Your task to perform on an android device: Open calendar and show me the first week of next month Image 0: 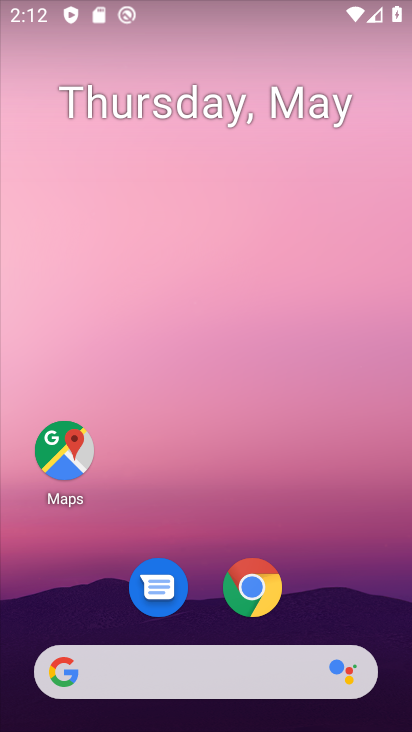
Step 0: drag from (327, 549) to (245, 80)
Your task to perform on an android device: Open calendar and show me the first week of next month Image 1: 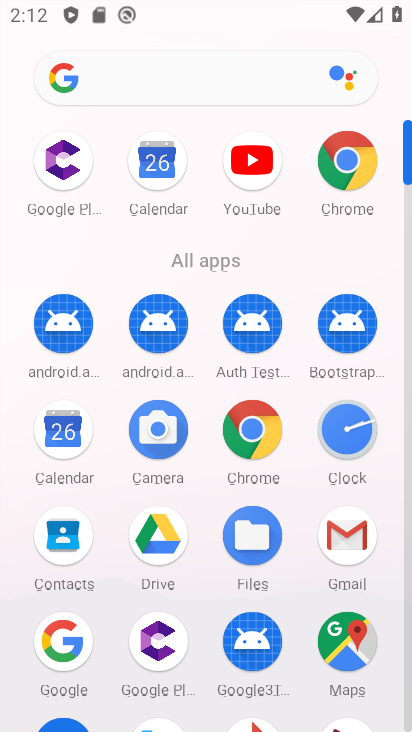
Step 1: click (71, 425)
Your task to perform on an android device: Open calendar and show me the first week of next month Image 2: 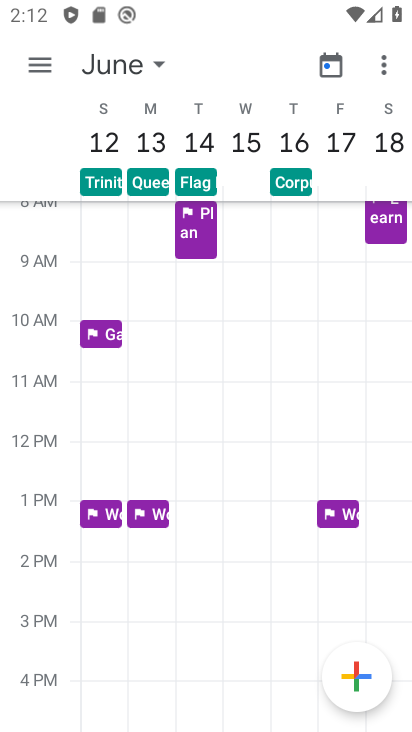
Step 2: click (106, 71)
Your task to perform on an android device: Open calendar and show me the first week of next month Image 3: 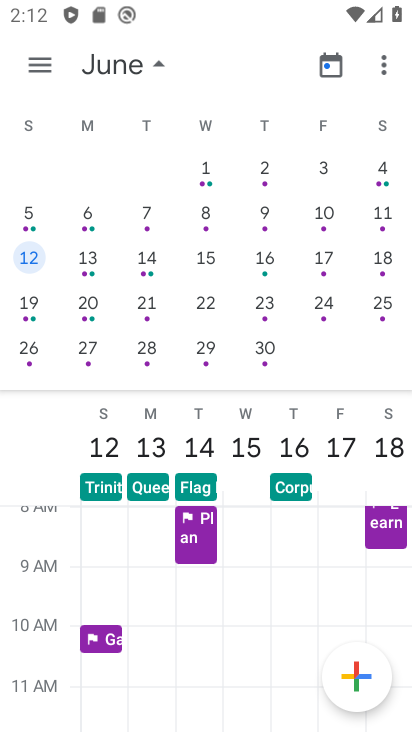
Step 3: click (27, 208)
Your task to perform on an android device: Open calendar and show me the first week of next month Image 4: 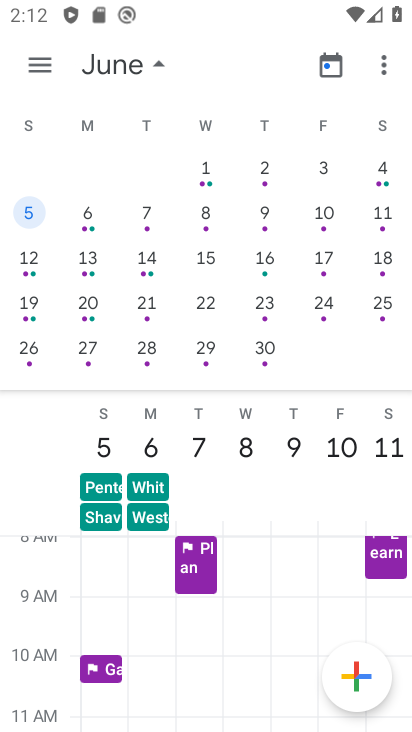
Step 4: task complete